Your task to perform on an android device: Search for "acer nitro" on ebay.com, select the first entry, add it to the cart, then select checkout. Image 0: 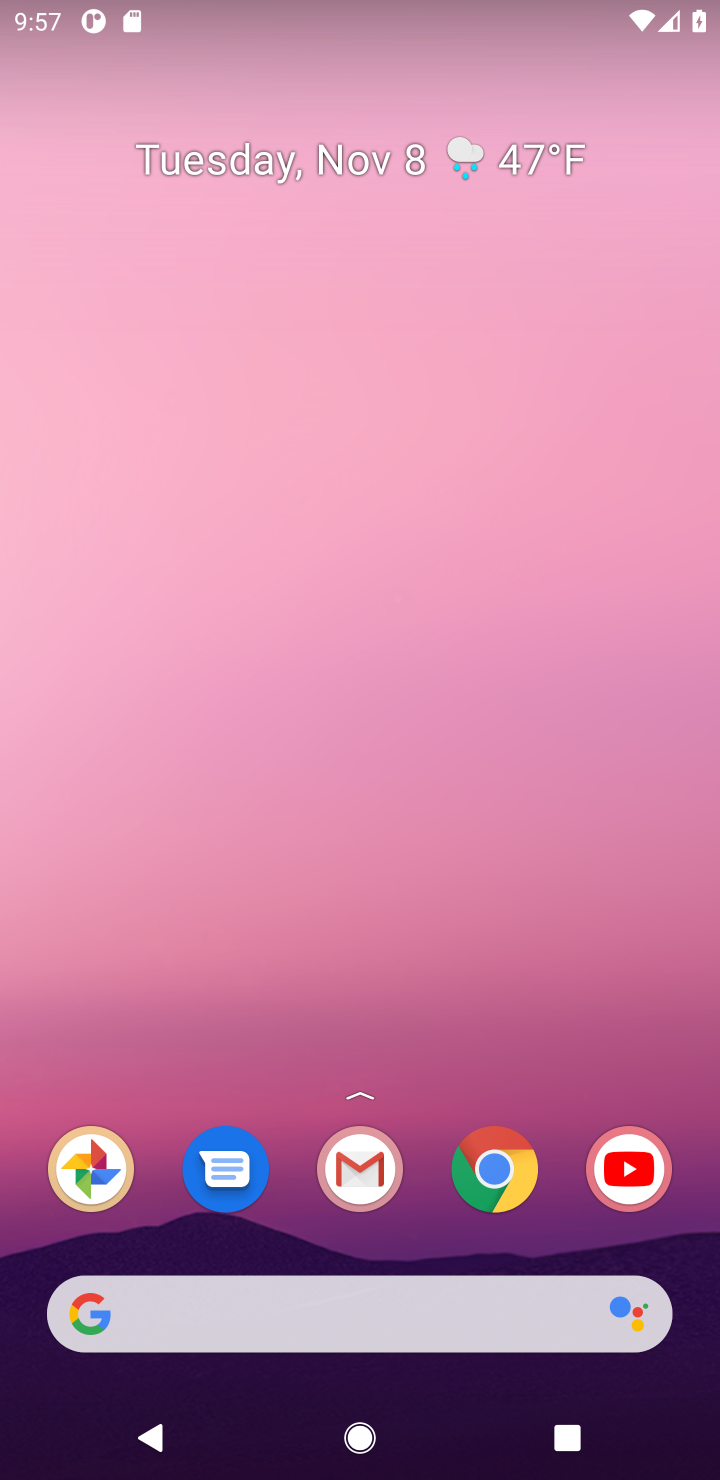
Step 0: click (489, 1162)
Your task to perform on an android device: Search for "acer nitro" on ebay.com, select the first entry, add it to the cart, then select checkout. Image 1: 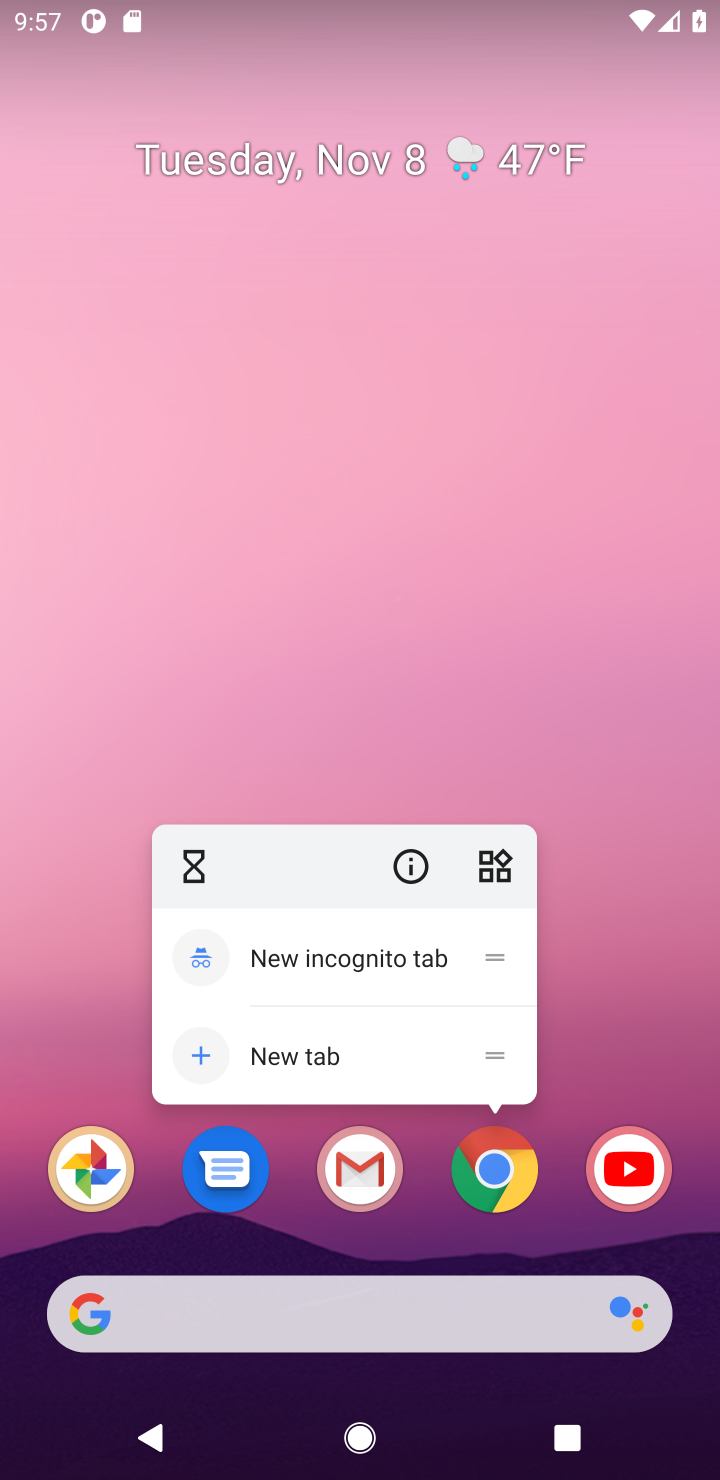
Step 1: click (489, 1162)
Your task to perform on an android device: Search for "acer nitro" on ebay.com, select the first entry, add it to the cart, then select checkout. Image 2: 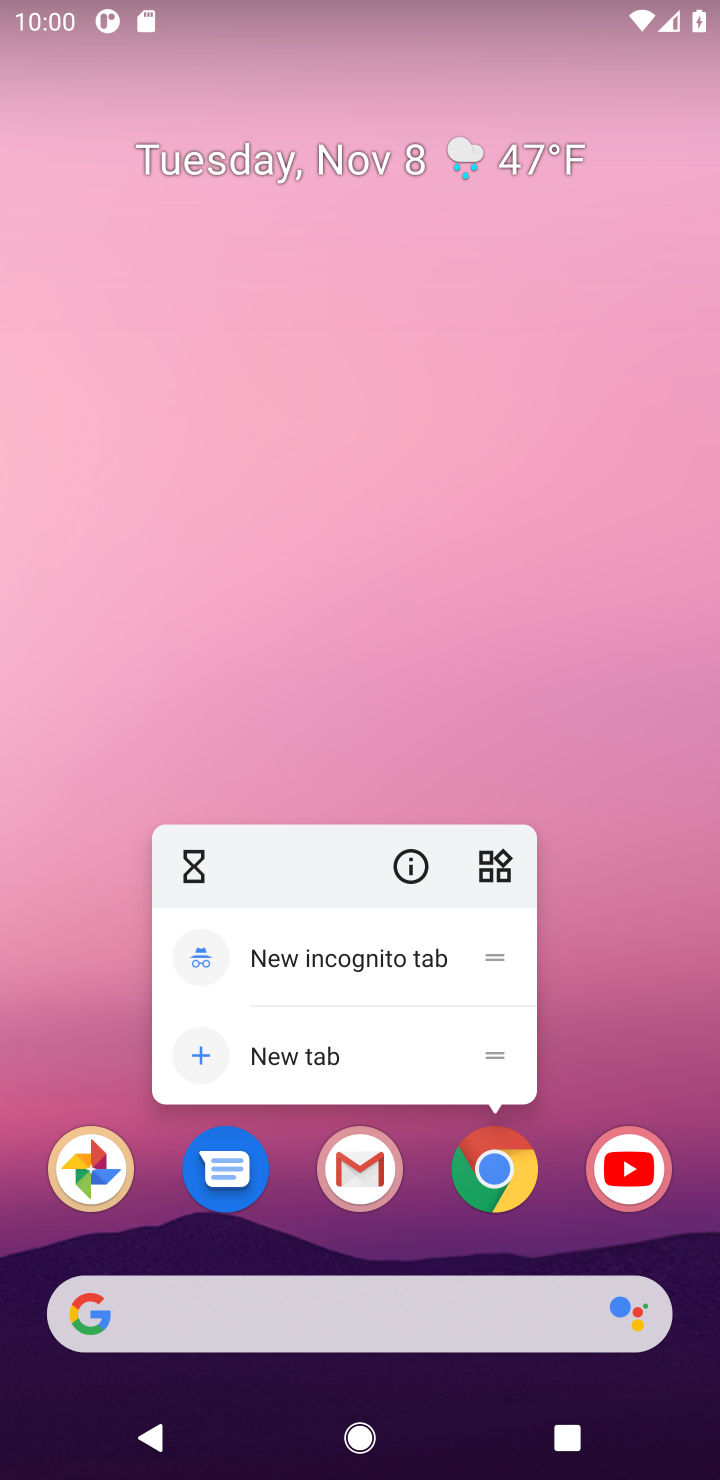
Step 2: click (499, 1185)
Your task to perform on an android device: Search for "acer nitro" on ebay.com, select the first entry, add it to the cart, then select checkout. Image 3: 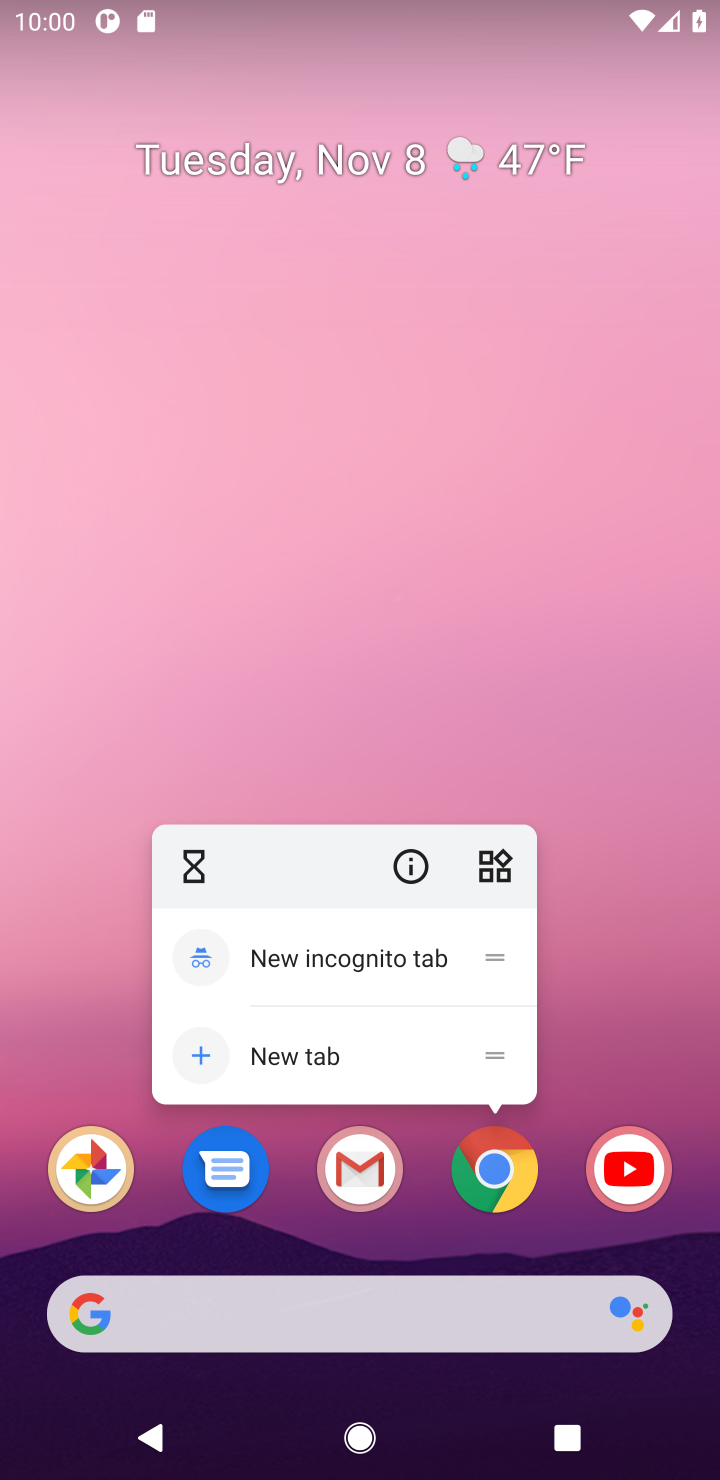
Step 3: click (488, 1179)
Your task to perform on an android device: Search for "acer nitro" on ebay.com, select the first entry, add it to the cart, then select checkout. Image 4: 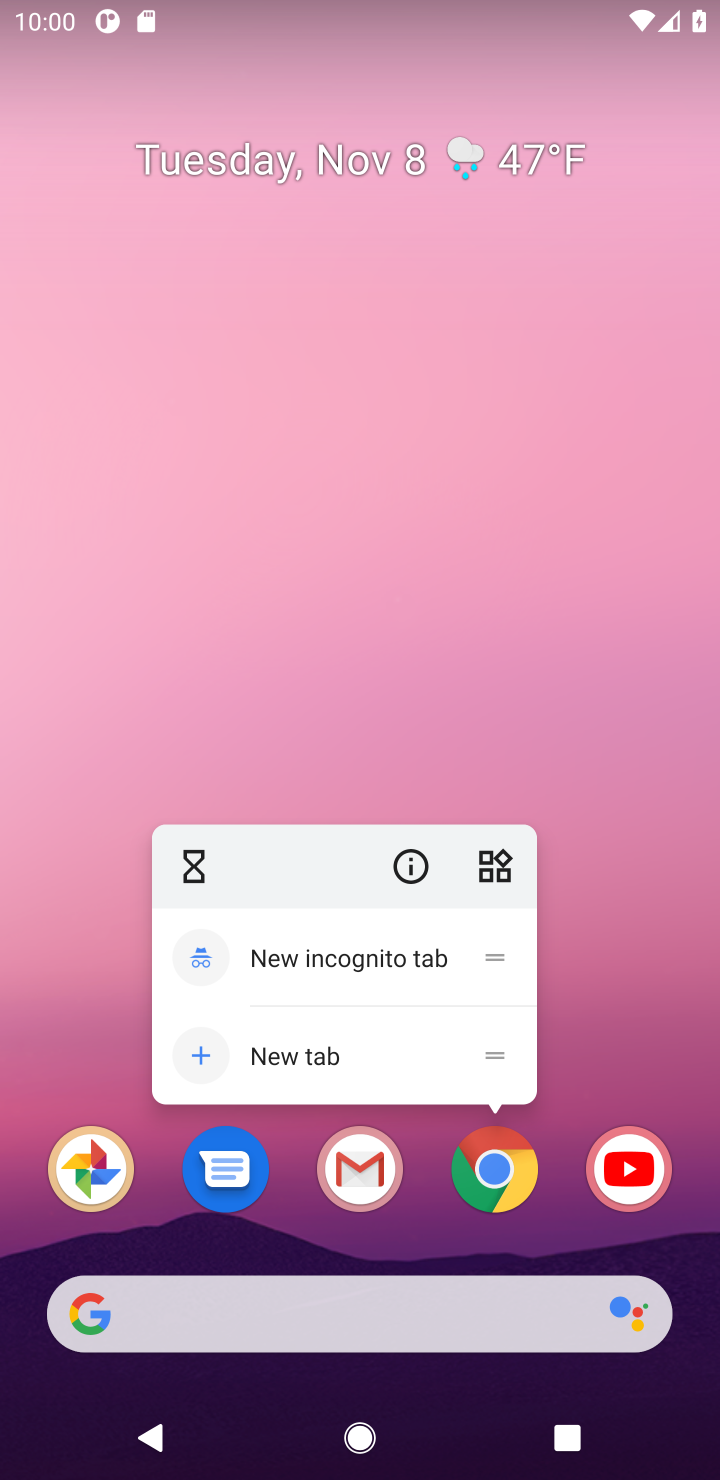
Step 4: click (490, 1179)
Your task to perform on an android device: Search for "acer nitro" on ebay.com, select the first entry, add it to the cart, then select checkout. Image 5: 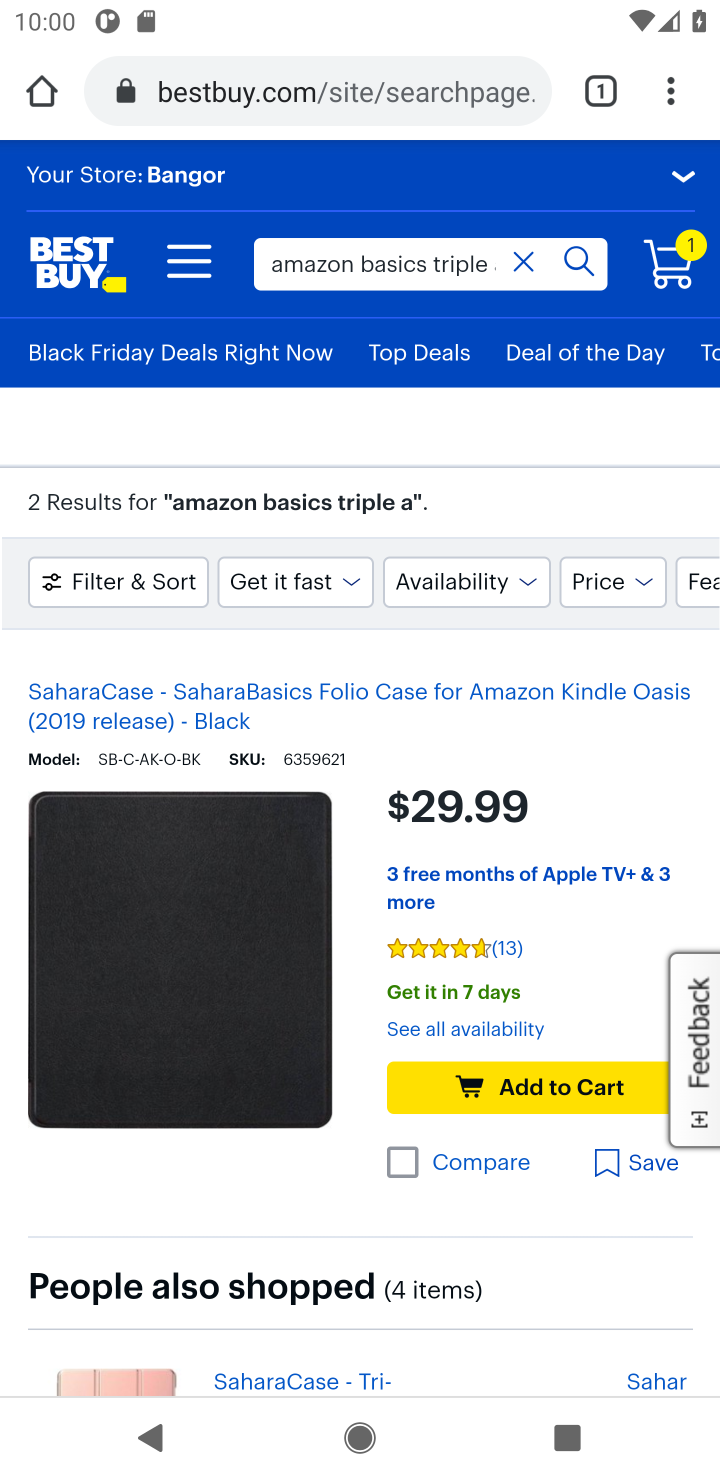
Step 5: click (368, 80)
Your task to perform on an android device: Search for "acer nitro" on ebay.com, select the first entry, add it to the cart, then select checkout. Image 6: 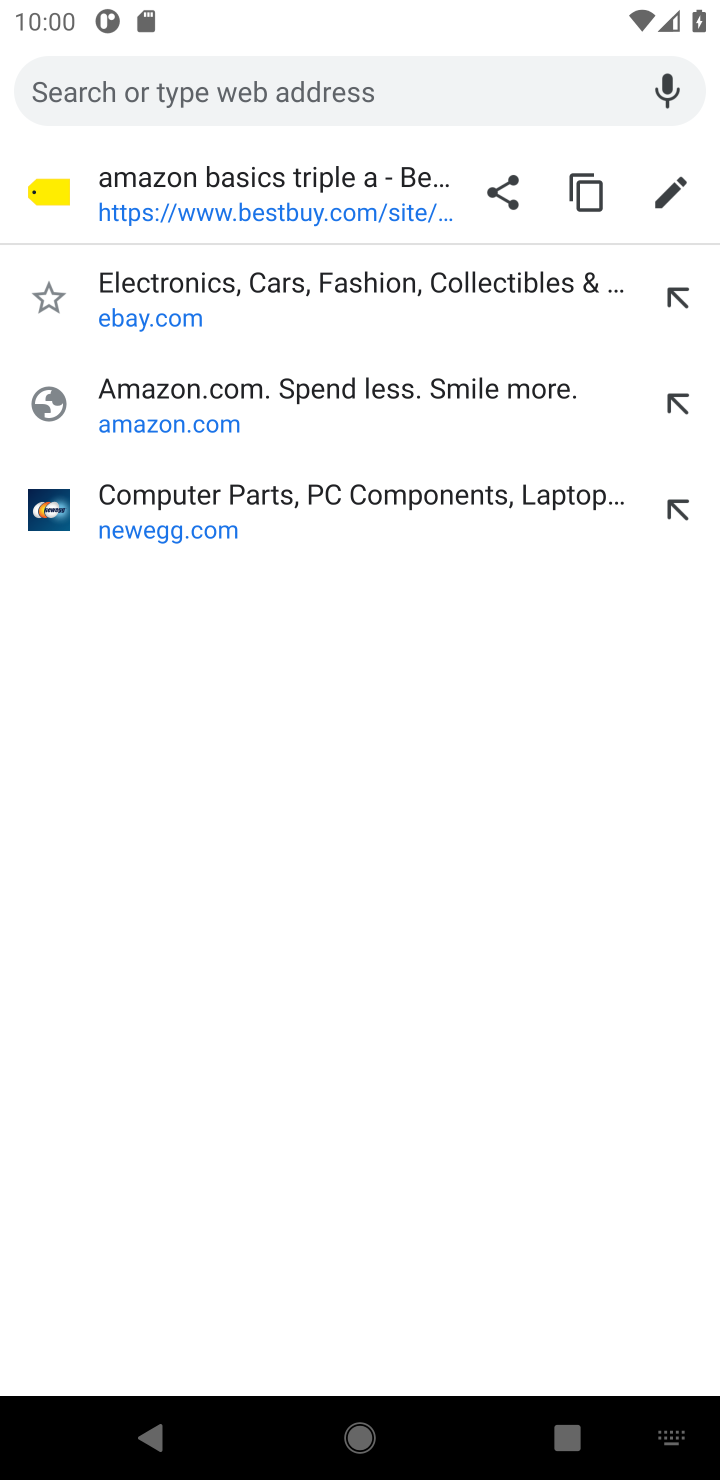
Step 6: type "ebay.com"
Your task to perform on an android device: Search for "acer nitro" on ebay.com, select the first entry, add it to the cart, then select checkout. Image 7: 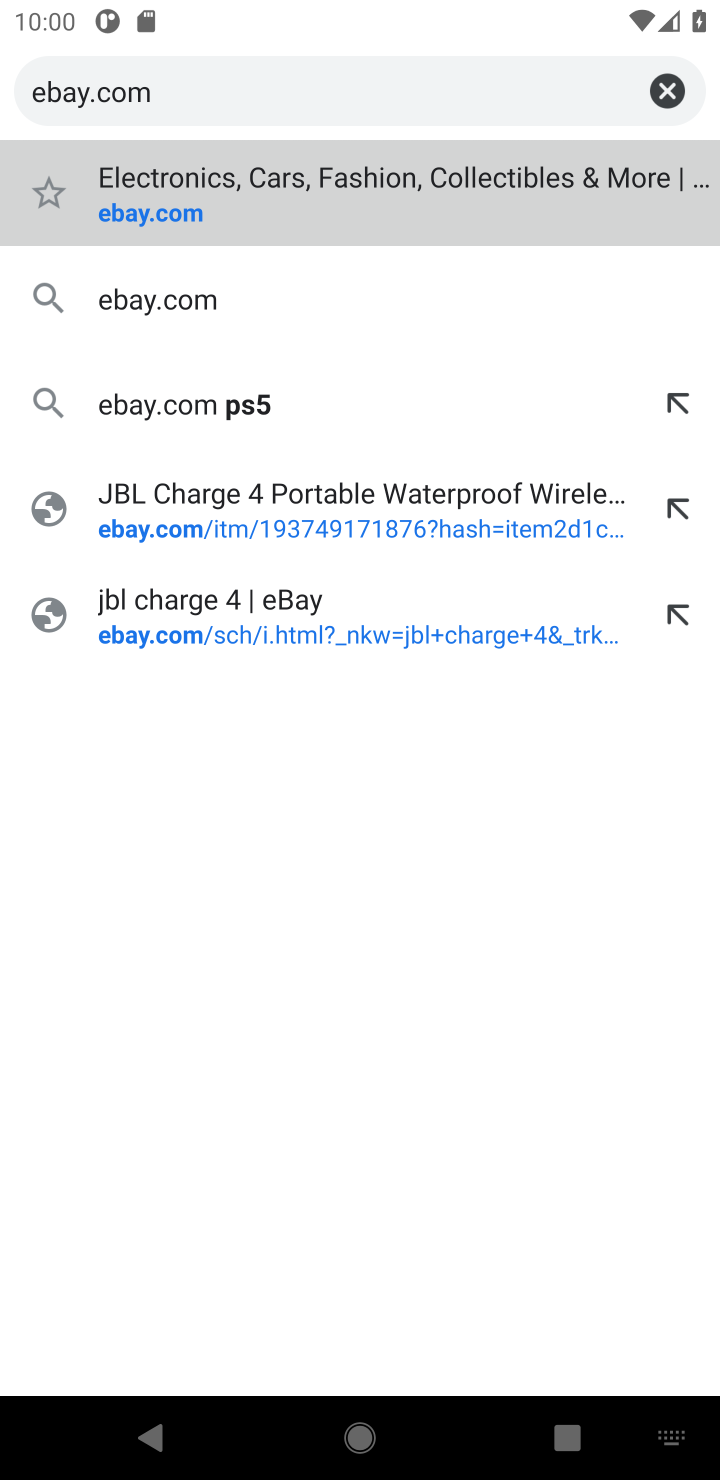
Step 7: press enter
Your task to perform on an android device: Search for "acer nitro" on ebay.com, select the first entry, add it to the cart, then select checkout. Image 8: 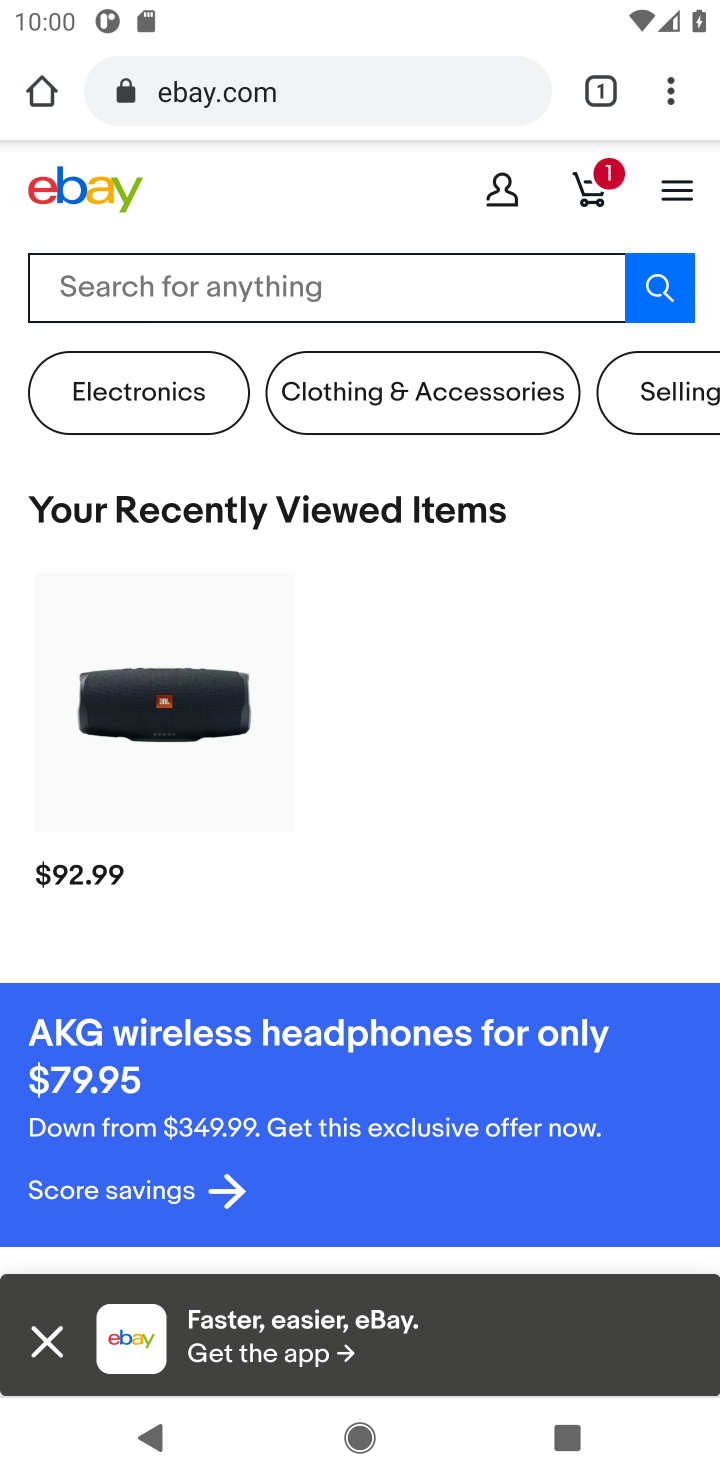
Step 8: click (176, 275)
Your task to perform on an android device: Search for "acer nitro" on ebay.com, select the first entry, add it to the cart, then select checkout. Image 9: 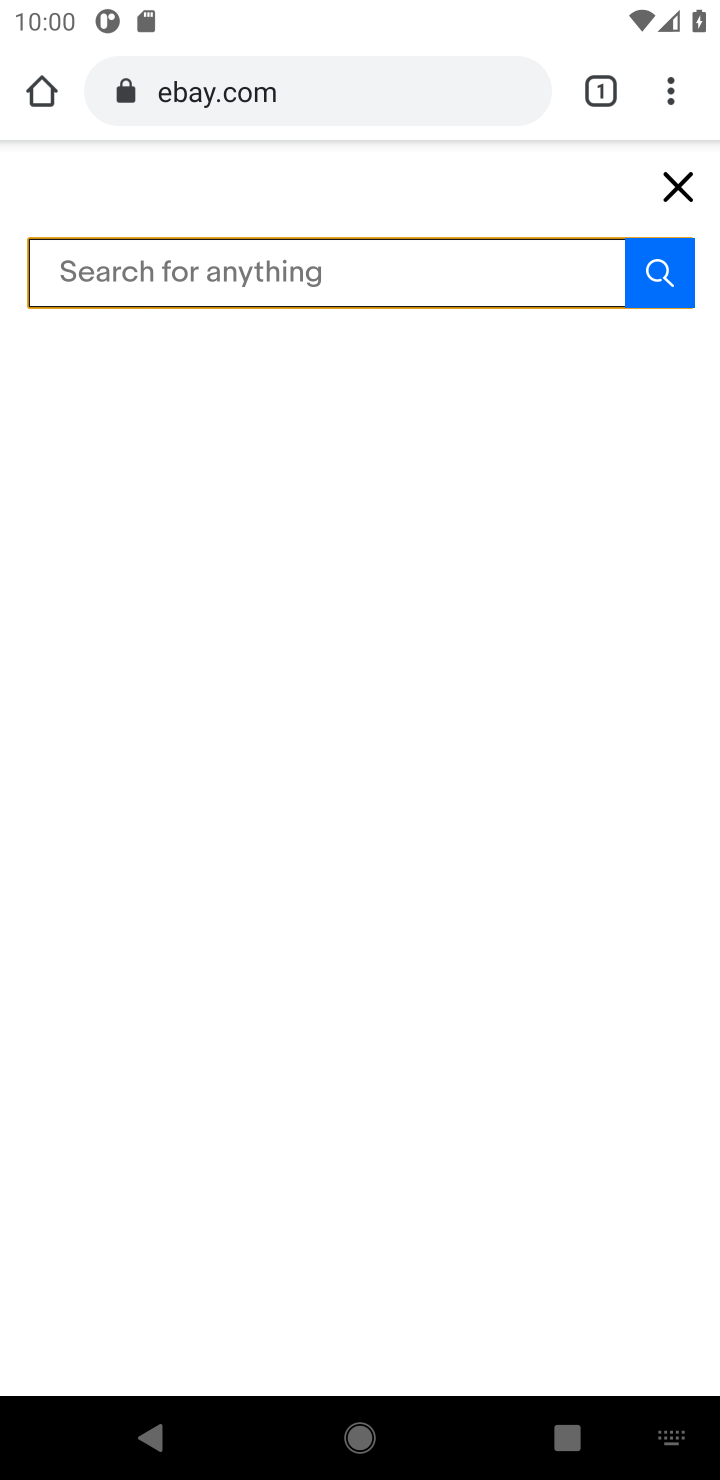
Step 9: type "acer nitro"
Your task to perform on an android device: Search for "acer nitro" on ebay.com, select the first entry, add it to the cart, then select checkout. Image 10: 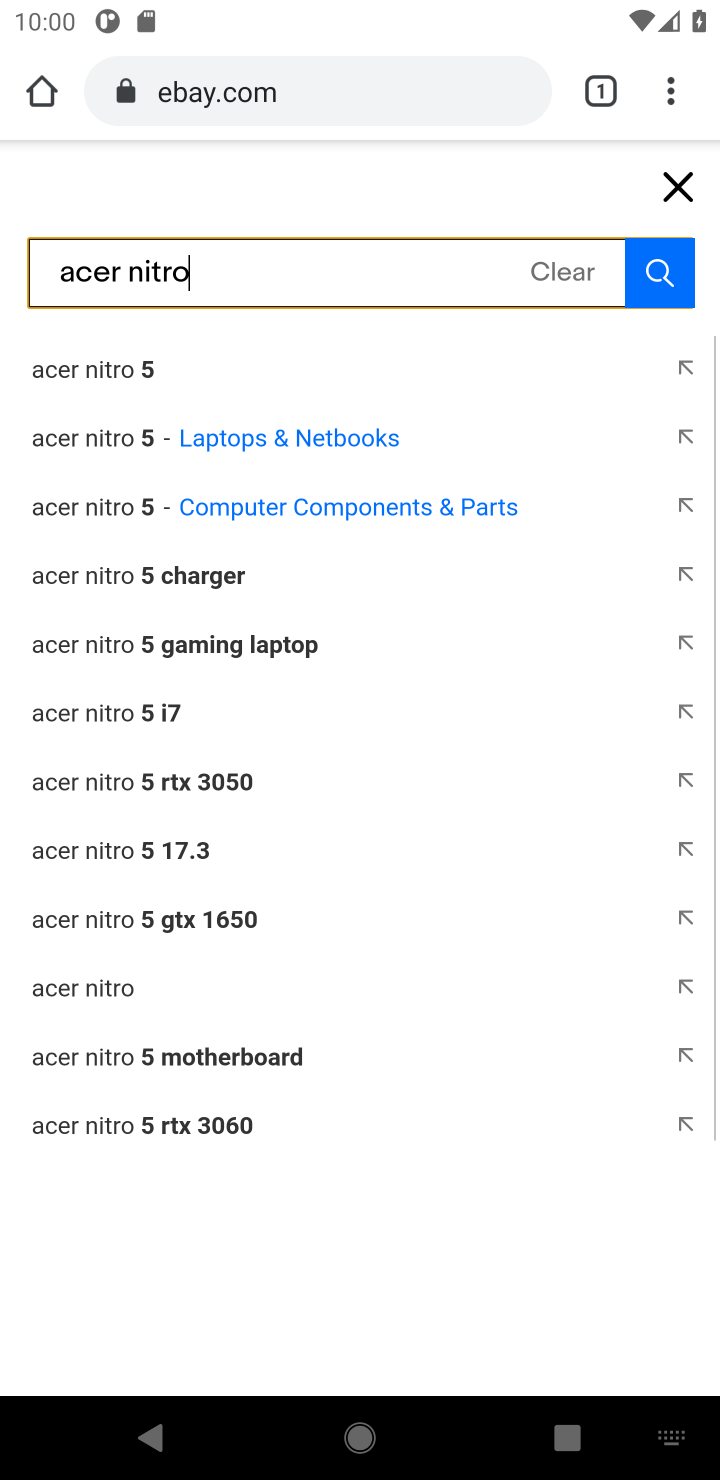
Step 10: press enter
Your task to perform on an android device: Search for "acer nitro" on ebay.com, select the first entry, add it to the cart, then select checkout. Image 11: 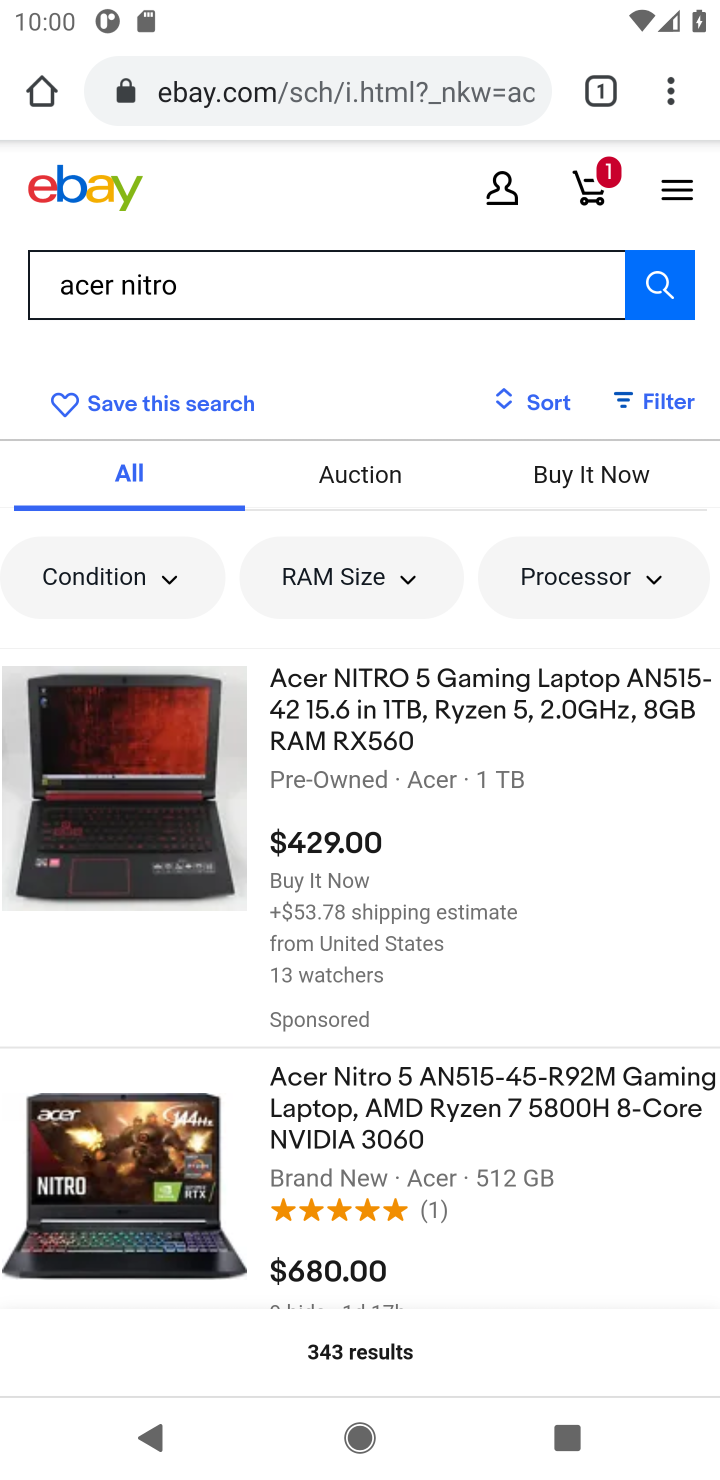
Step 11: click (134, 742)
Your task to perform on an android device: Search for "acer nitro" on ebay.com, select the first entry, add it to the cart, then select checkout. Image 12: 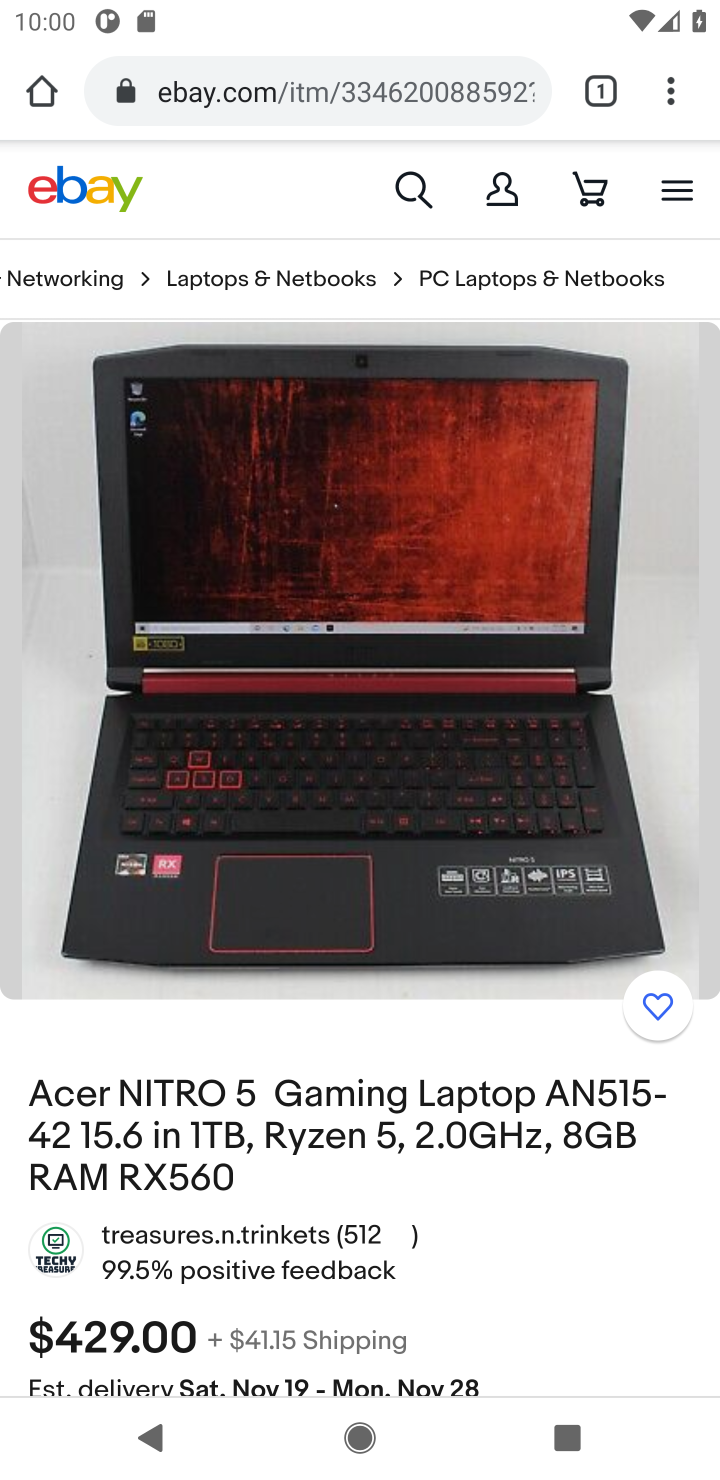
Step 12: drag from (528, 583) to (512, 380)
Your task to perform on an android device: Search for "acer nitro" on ebay.com, select the first entry, add it to the cart, then select checkout. Image 13: 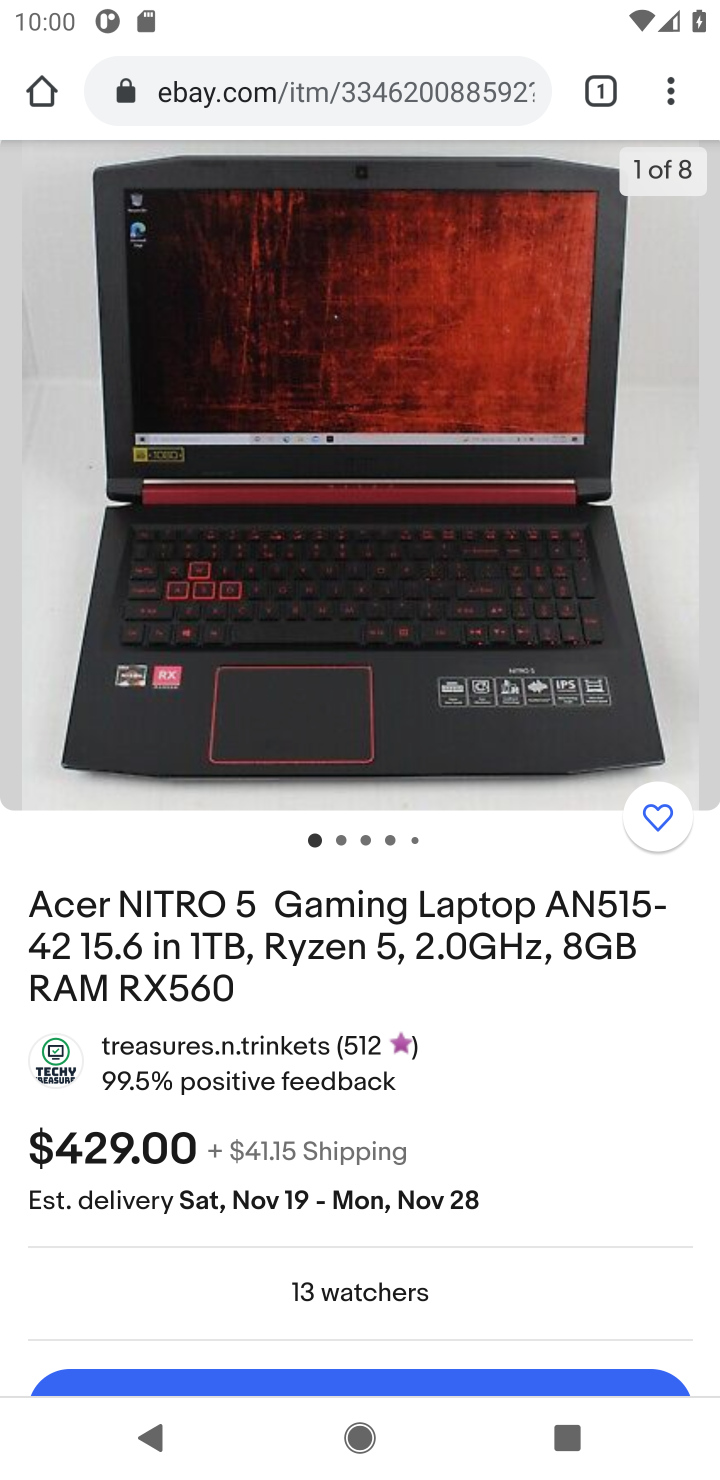
Step 13: drag from (531, 660) to (536, 461)
Your task to perform on an android device: Search for "acer nitro" on ebay.com, select the first entry, add it to the cart, then select checkout. Image 14: 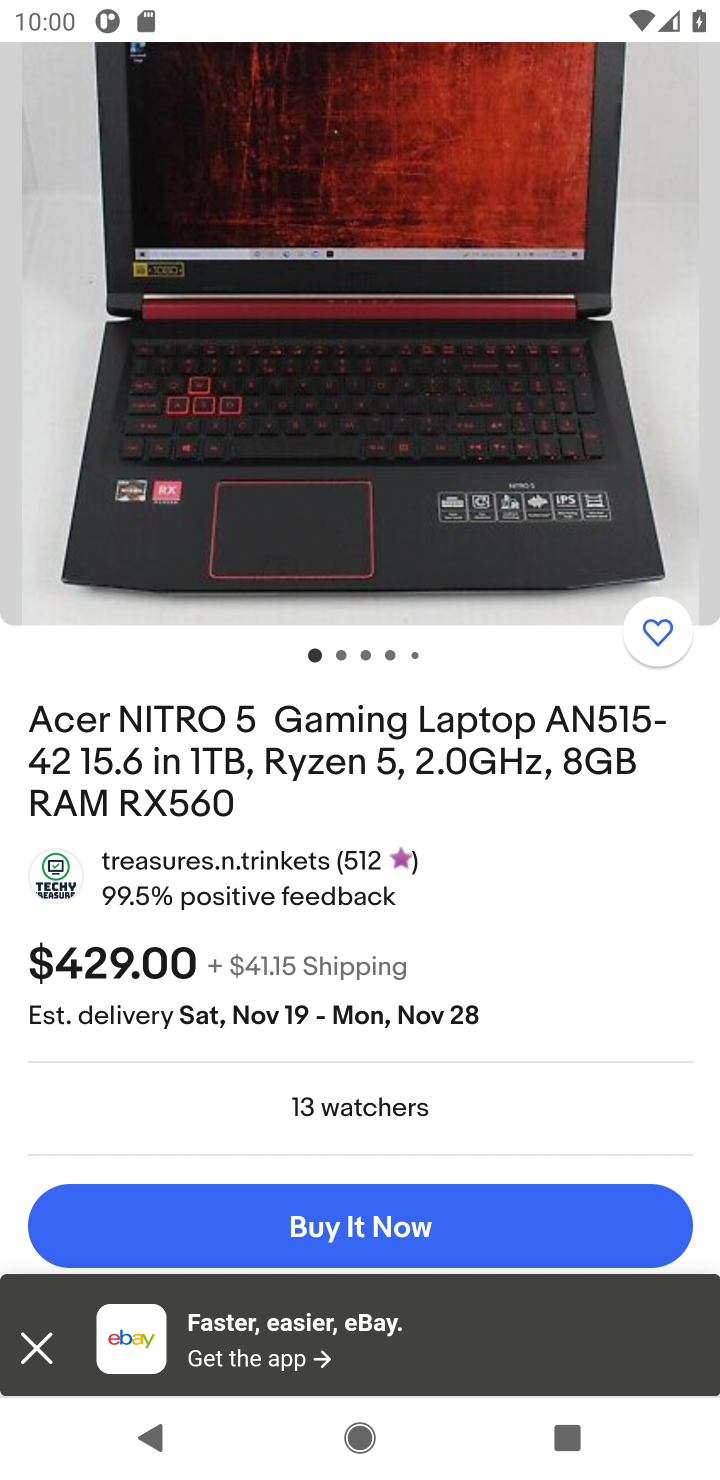
Step 14: drag from (585, 1030) to (577, 472)
Your task to perform on an android device: Search for "acer nitro" on ebay.com, select the first entry, add it to the cart, then select checkout. Image 15: 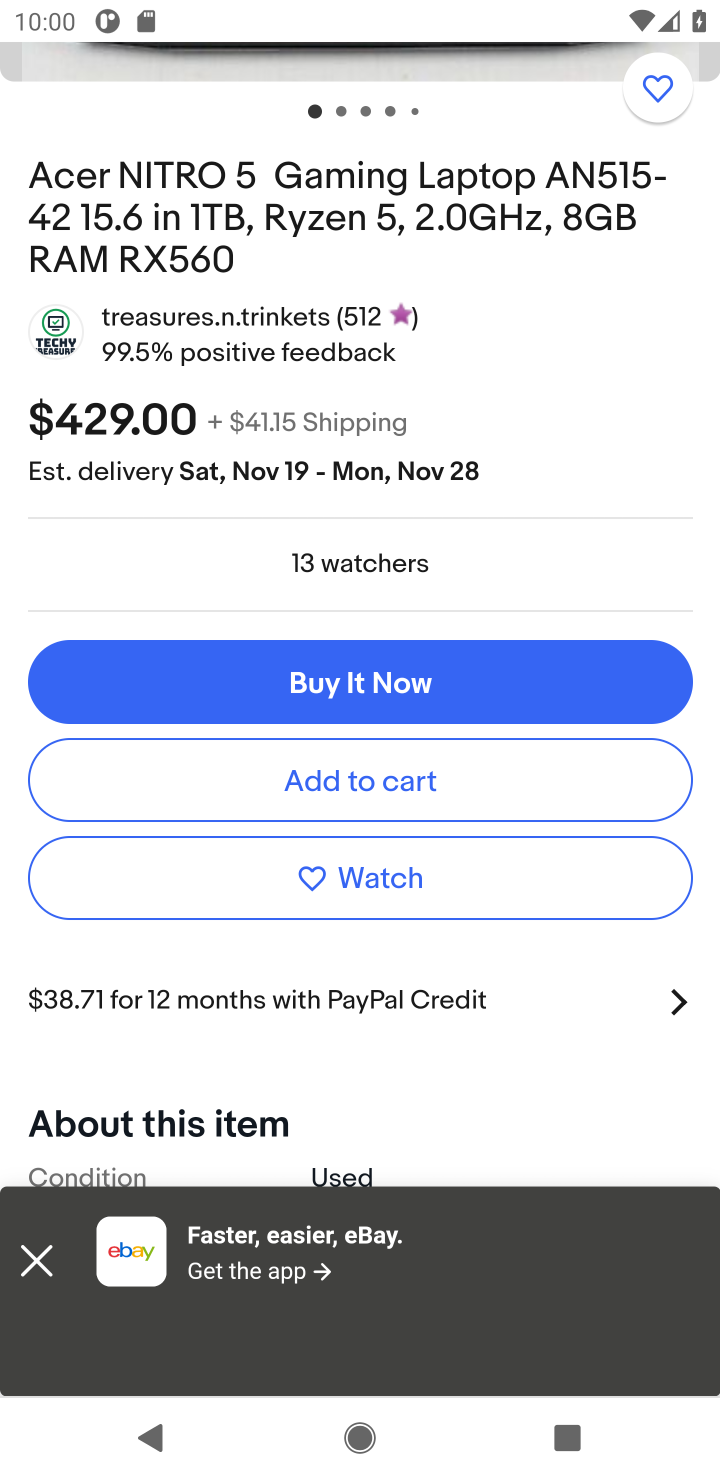
Step 15: click (358, 787)
Your task to perform on an android device: Search for "acer nitro" on ebay.com, select the first entry, add it to the cart, then select checkout. Image 16: 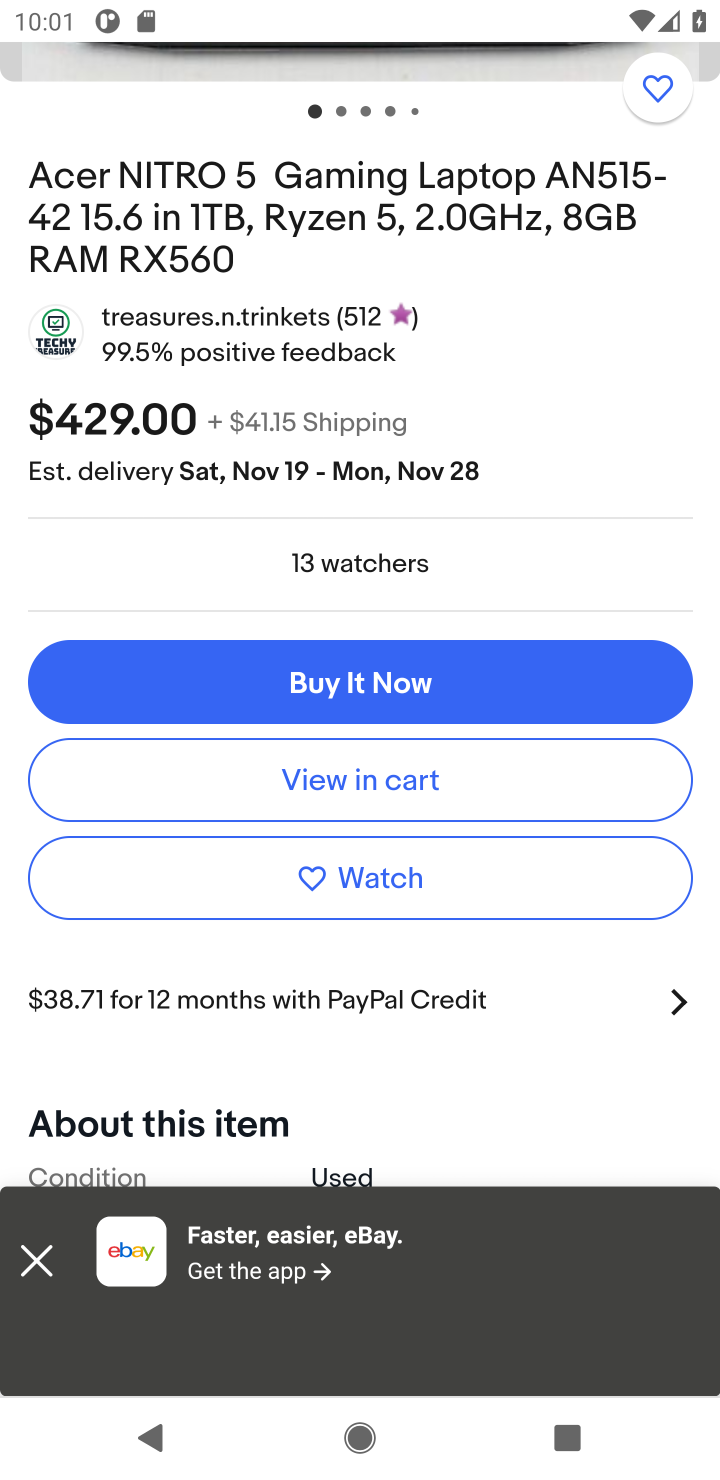
Step 16: click (359, 769)
Your task to perform on an android device: Search for "acer nitro" on ebay.com, select the first entry, add it to the cart, then select checkout. Image 17: 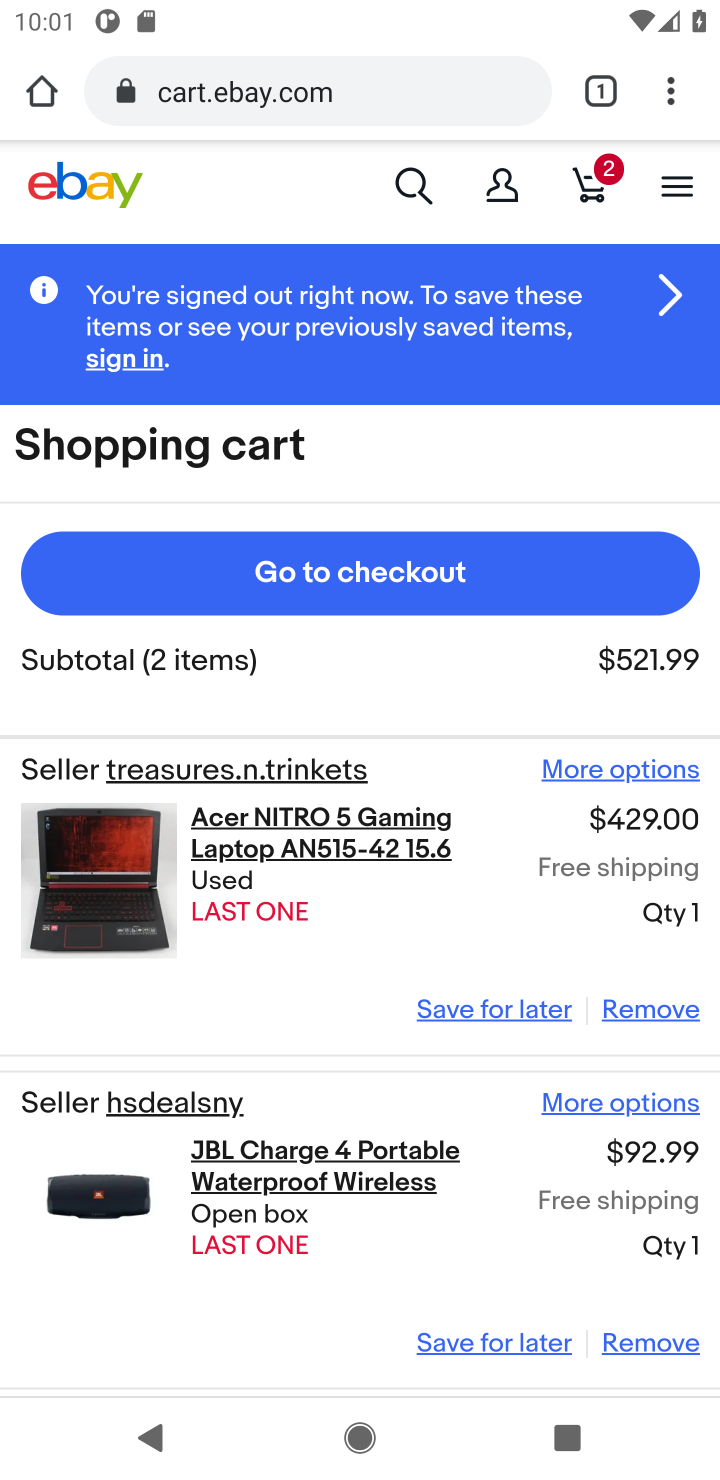
Step 17: click (466, 546)
Your task to perform on an android device: Search for "acer nitro" on ebay.com, select the first entry, add it to the cart, then select checkout. Image 18: 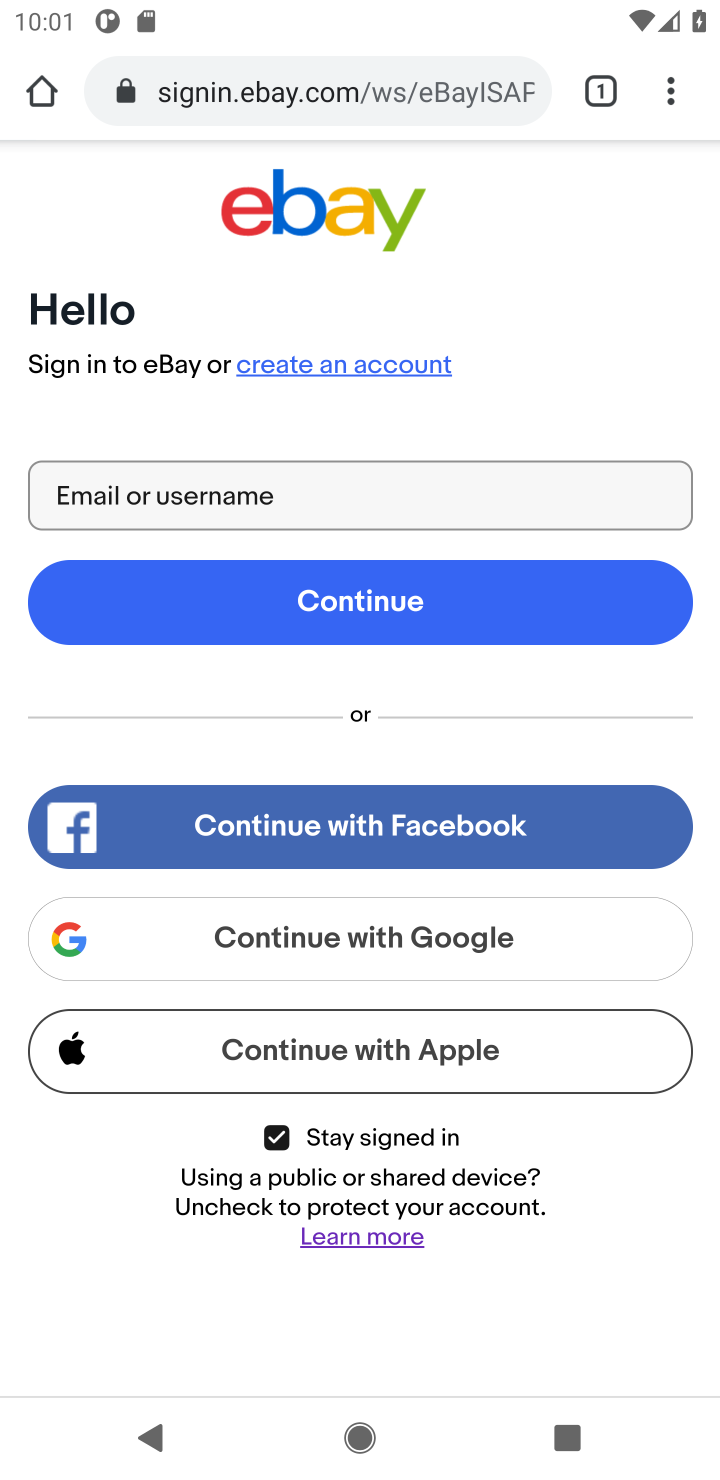
Step 18: task complete